Your task to perform on an android device: turn off javascript in the chrome app Image 0: 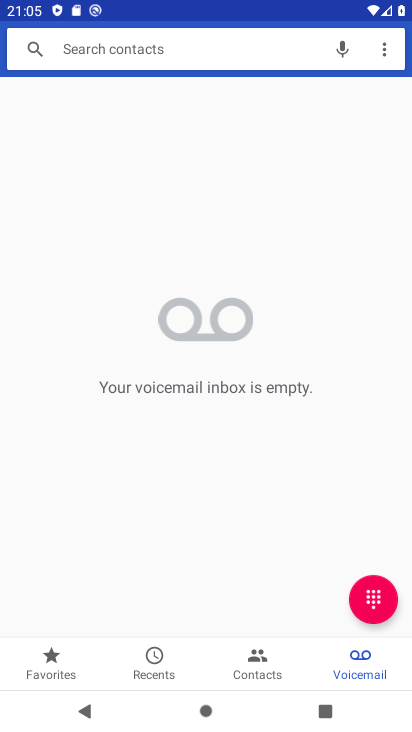
Step 0: press home button
Your task to perform on an android device: turn off javascript in the chrome app Image 1: 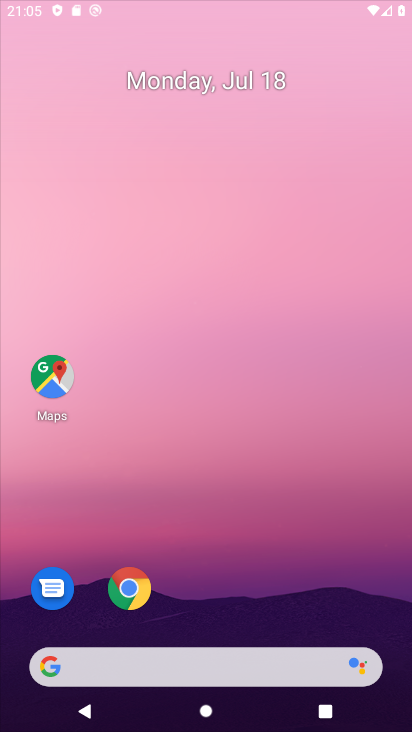
Step 1: drag from (229, 631) to (295, 178)
Your task to perform on an android device: turn off javascript in the chrome app Image 2: 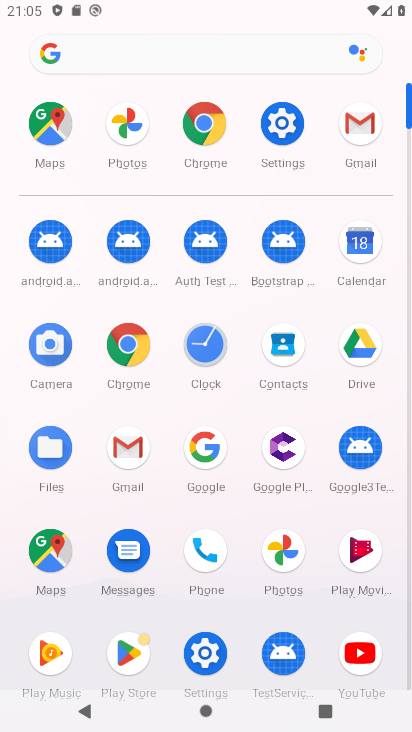
Step 2: click (222, 134)
Your task to perform on an android device: turn off javascript in the chrome app Image 3: 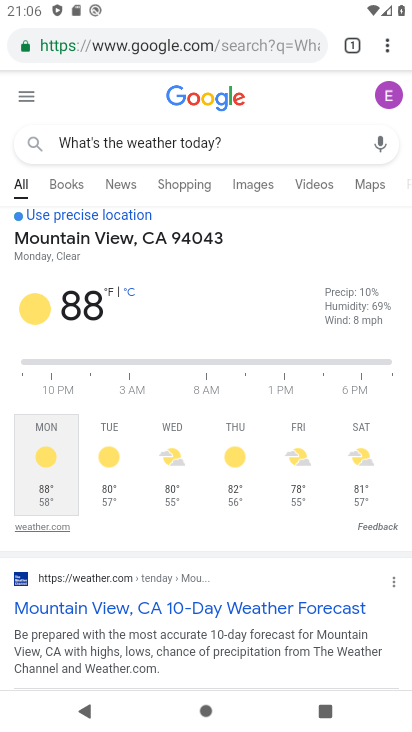
Step 3: click (392, 55)
Your task to perform on an android device: turn off javascript in the chrome app Image 4: 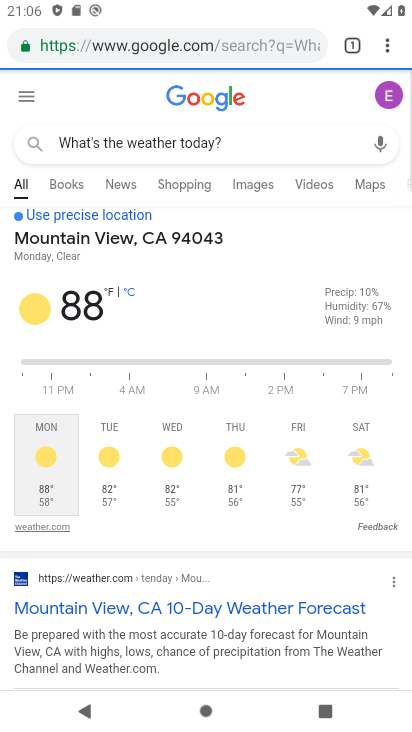
Step 4: drag from (392, 55) to (247, 512)
Your task to perform on an android device: turn off javascript in the chrome app Image 5: 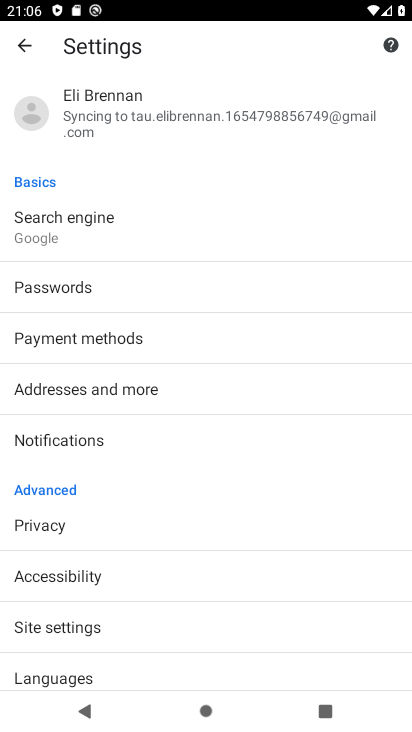
Step 5: click (66, 634)
Your task to perform on an android device: turn off javascript in the chrome app Image 6: 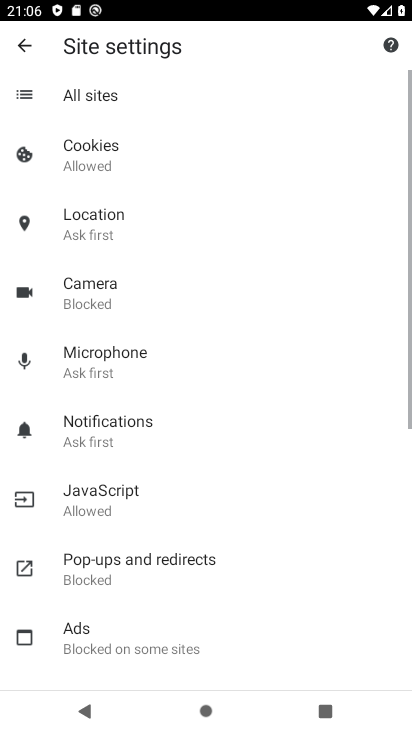
Step 6: click (28, 487)
Your task to perform on an android device: turn off javascript in the chrome app Image 7: 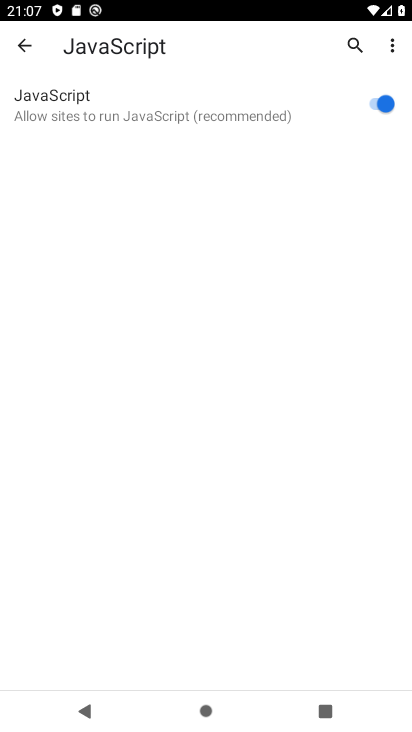
Step 7: click (363, 112)
Your task to perform on an android device: turn off javascript in the chrome app Image 8: 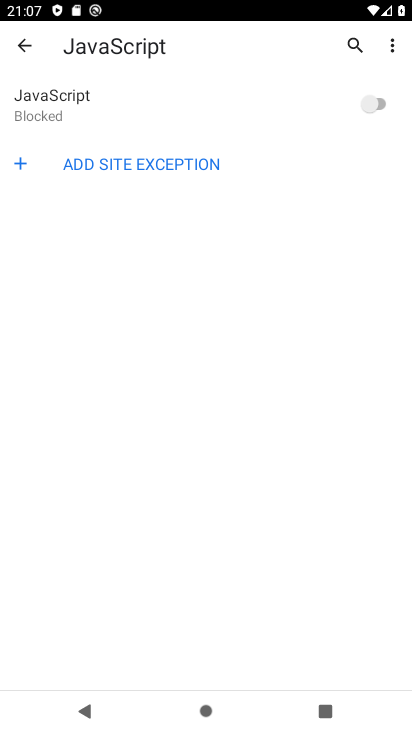
Step 8: task complete